Your task to perform on an android device: Search for Italian restaurants on Maps Image 0: 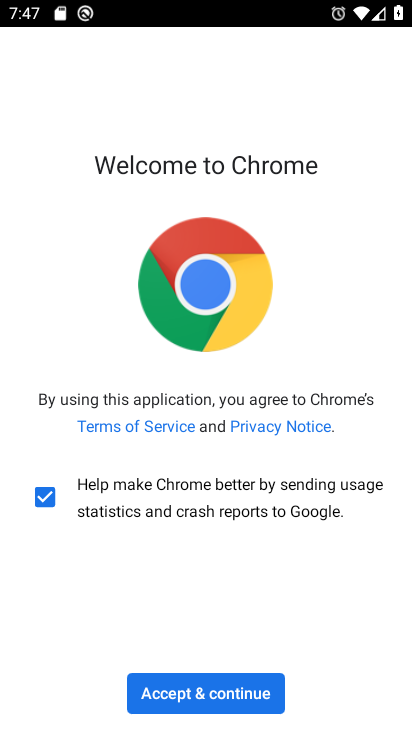
Step 0: press home button
Your task to perform on an android device: Search for Italian restaurants on Maps Image 1: 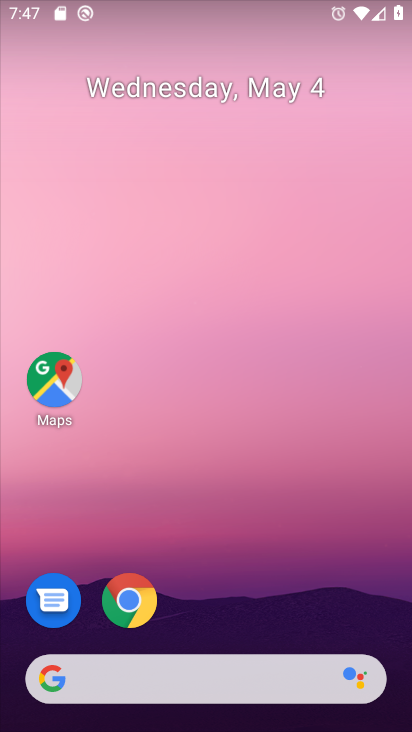
Step 1: click (52, 369)
Your task to perform on an android device: Search for Italian restaurants on Maps Image 2: 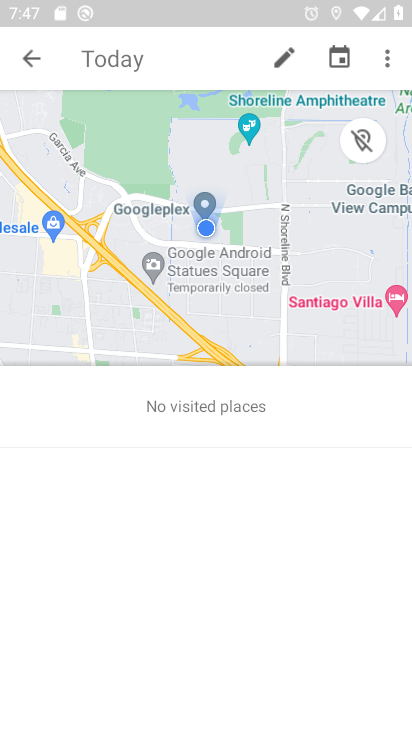
Step 2: click (33, 68)
Your task to perform on an android device: Search for Italian restaurants on Maps Image 3: 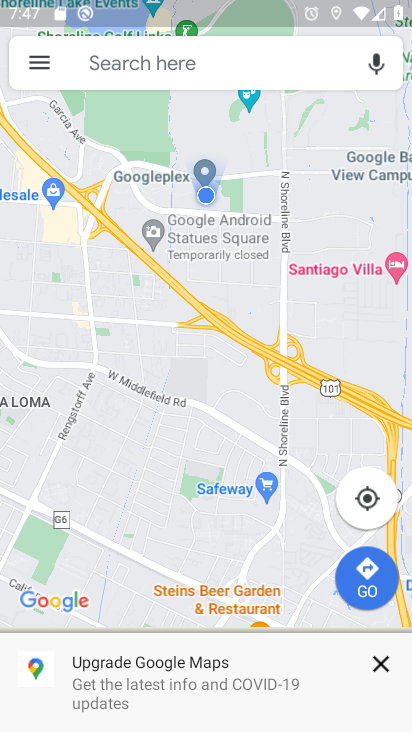
Step 3: click (160, 59)
Your task to perform on an android device: Search for Italian restaurants on Maps Image 4: 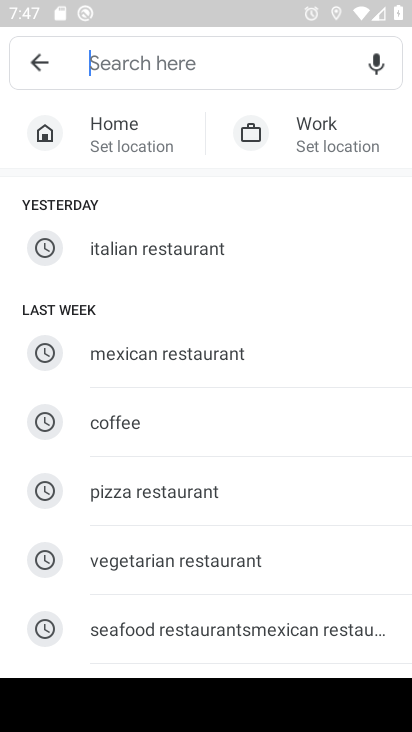
Step 4: click (151, 57)
Your task to perform on an android device: Search for Italian restaurants on Maps Image 5: 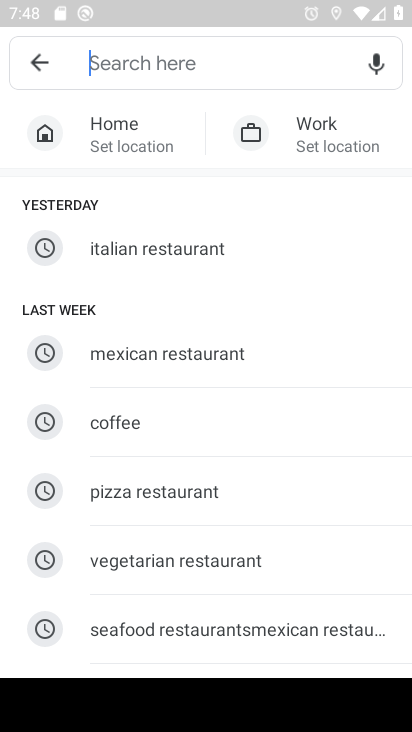
Step 5: type "italian reasturent"
Your task to perform on an android device: Search for Italian restaurants on Maps Image 6: 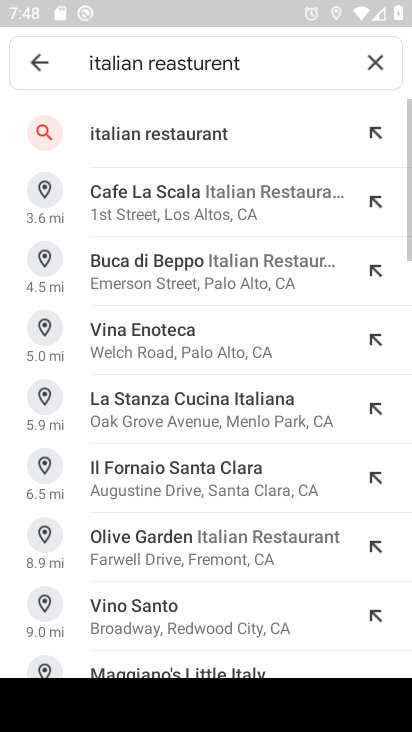
Step 6: click (125, 132)
Your task to perform on an android device: Search for Italian restaurants on Maps Image 7: 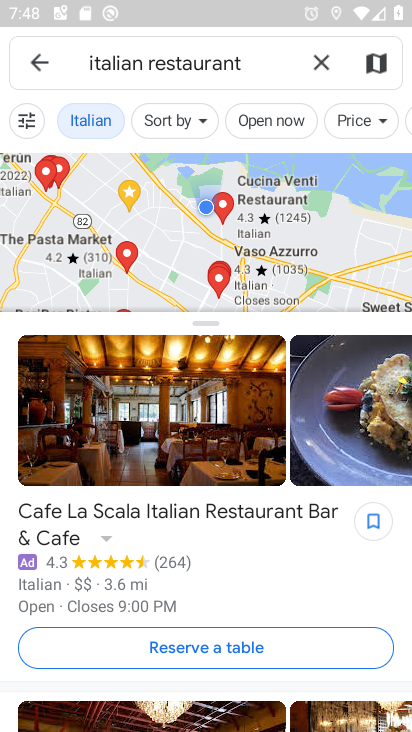
Step 7: task complete